Your task to perform on an android device: Go to Reddit.com Image 0: 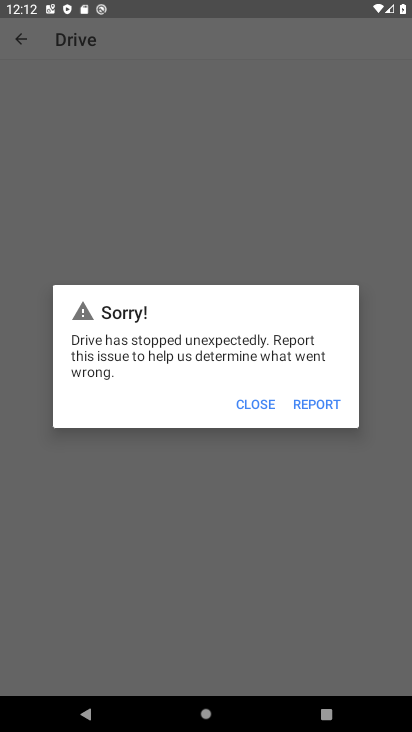
Step 0: press home button
Your task to perform on an android device: Go to Reddit.com Image 1: 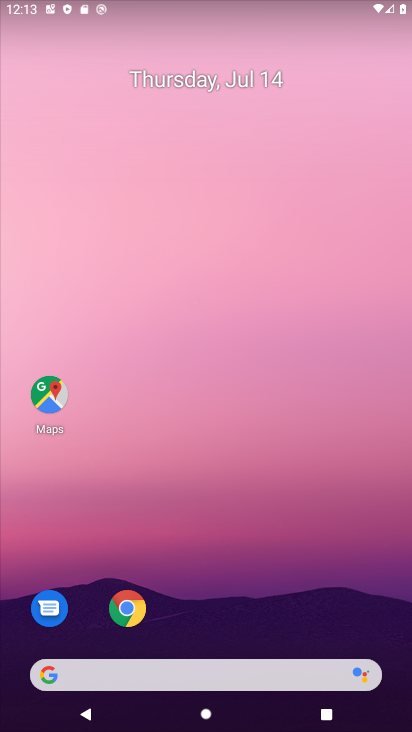
Step 1: click (272, 676)
Your task to perform on an android device: Go to Reddit.com Image 2: 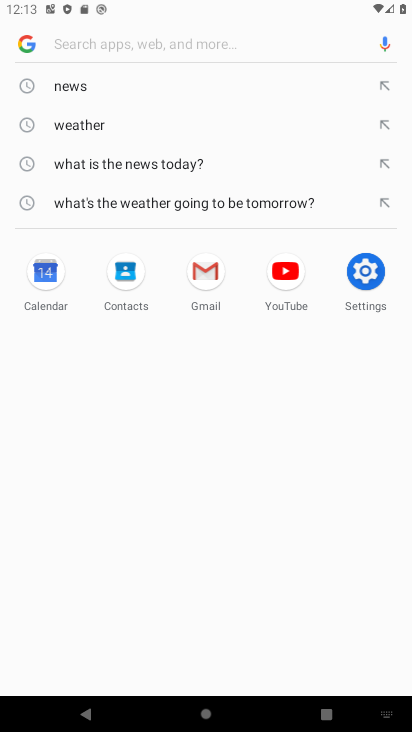
Step 2: type "reddit.com"
Your task to perform on an android device: Go to Reddit.com Image 3: 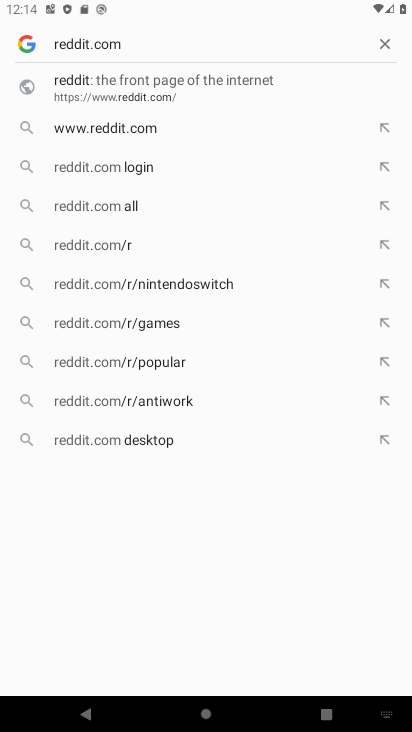
Step 3: click (108, 81)
Your task to perform on an android device: Go to Reddit.com Image 4: 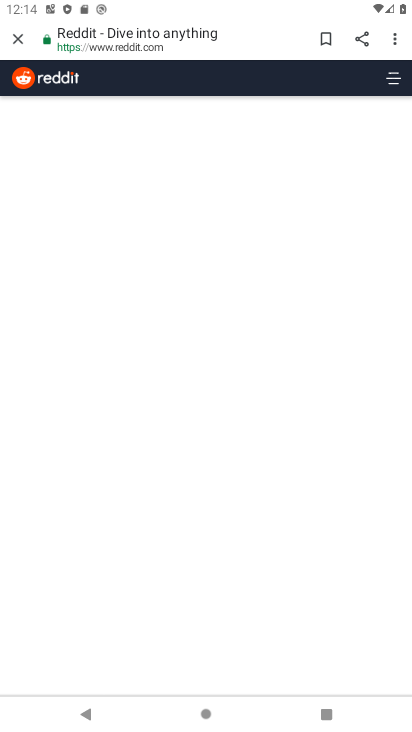
Step 4: task complete